Your task to perform on an android device: Open calendar and show me the second week of next month Image 0: 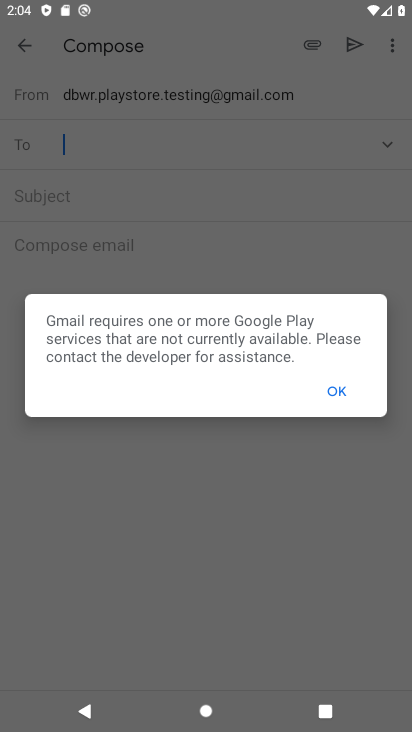
Step 0: press home button
Your task to perform on an android device: Open calendar and show me the second week of next month Image 1: 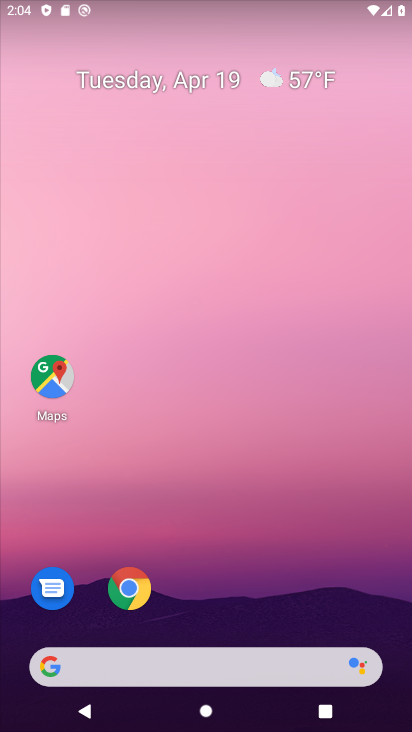
Step 1: drag from (293, 587) to (319, 145)
Your task to perform on an android device: Open calendar and show me the second week of next month Image 2: 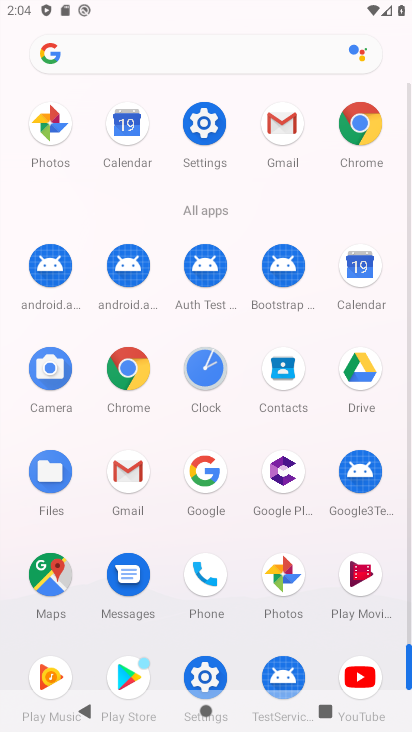
Step 2: click (128, 128)
Your task to perform on an android device: Open calendar and show me the second week of next month Image 3: 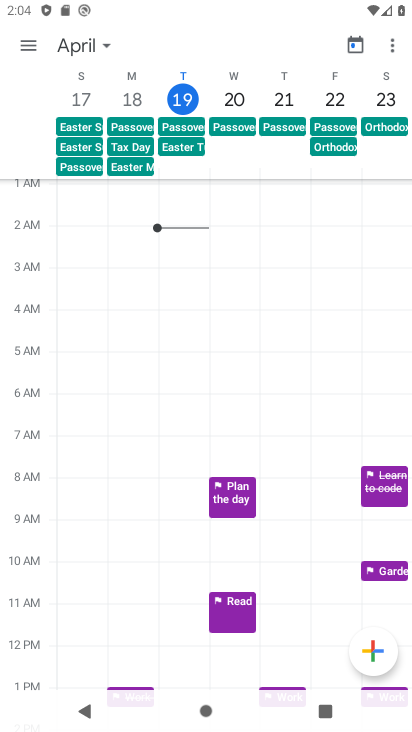
Step 3: task complete